Your task to perform on an android device: allow notifications from all sites in the chrome app Image 0: 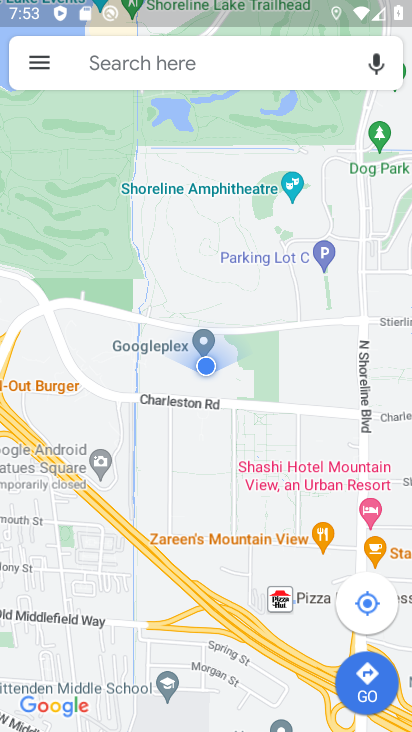
Step 0: press back button
Your task to perform on an android device: allow notifications from all sites in the chrome app Image 1: 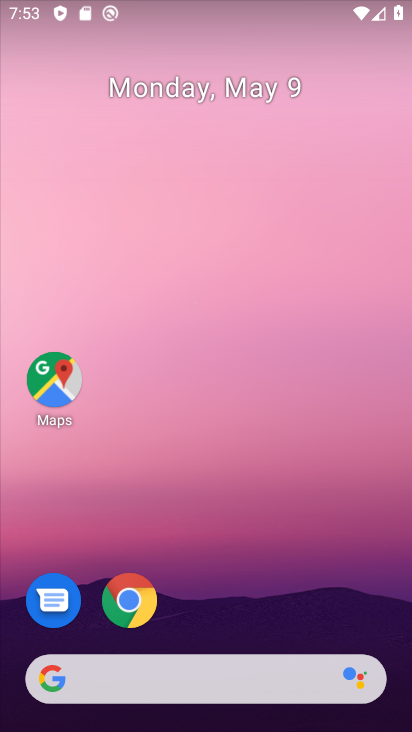
Step 1: drag from (259, 554) to (263, 10)
Your task to perform on an android device: allow notifications from all sites in the chrome app Image 2: 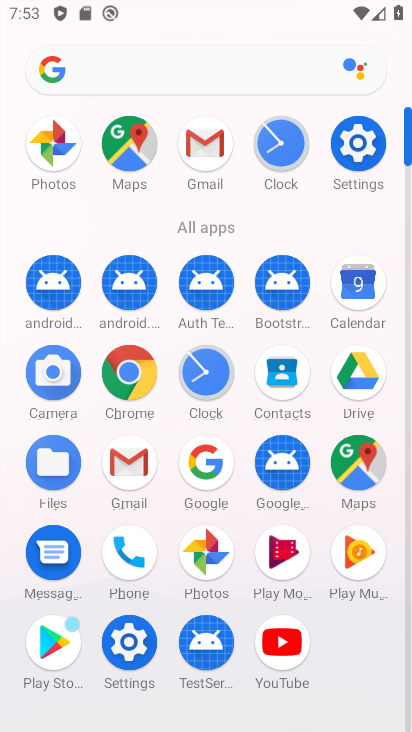
Step 2: click (123, 370)
Your task to perform on an android device: allow notifications from all sites in the chrome app Image 3: 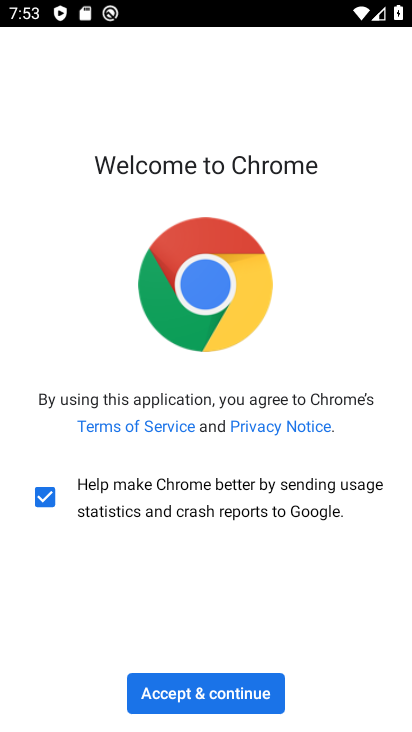
Step 3: click (192, 684)
Your task to perform on an android device: allow notifications from all sites in the chrome app Image 4: 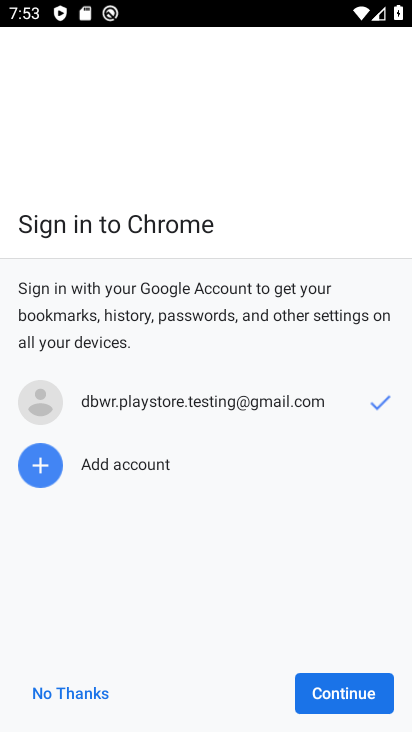
Step 4: click (335, 696)
Your task to perform on an android device: allow notifications from all sites in the chrome app Image 5: 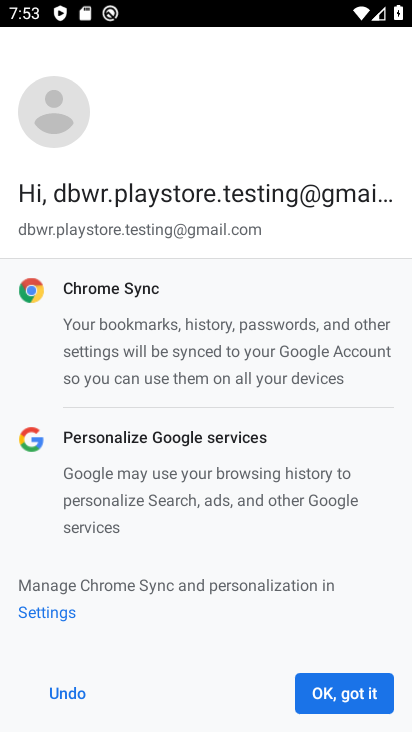
Step 5: click (338, 693)
Your task to perform on an android device: allow notifications from all sites in the chrome app Image 6: 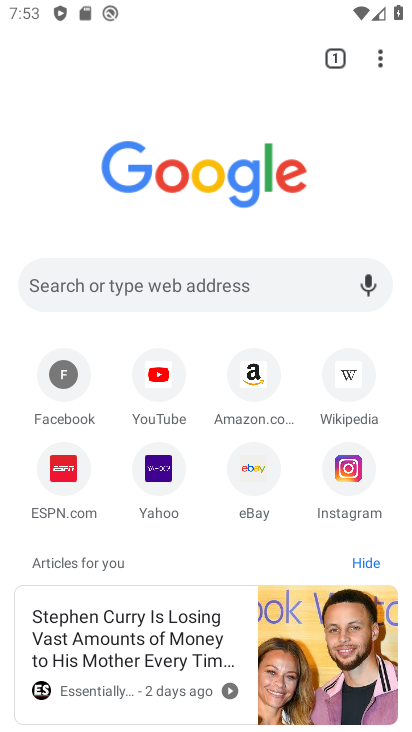
Step 6: drag from (378, 54) to (210, 486)
Your task to perform on an android device: allow notifications from all sites in the chrome app Image 7: 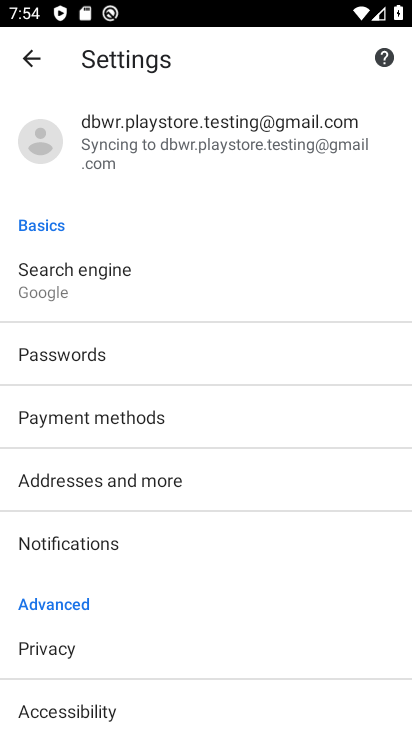
Step 7: drag from (187, 627) to (208, 324)
Your task to perform on an android device: allow notifications from all sites in the chrome app Image 8: 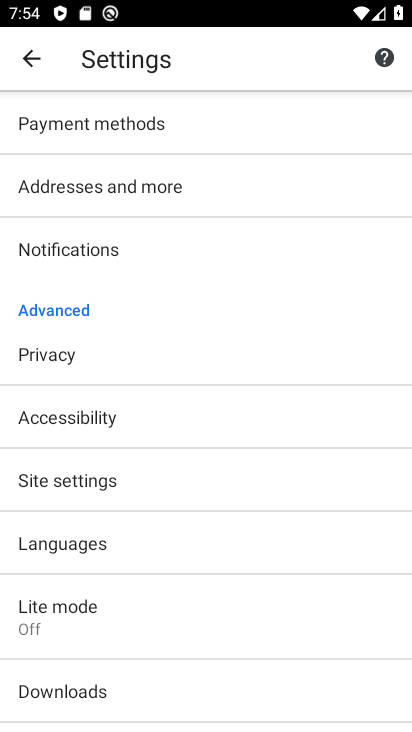
Step 8: drag from (236, 621) to (225, 290)
Your task to perform on an android device: allow notifications from all sites in the chrome app Image 9: 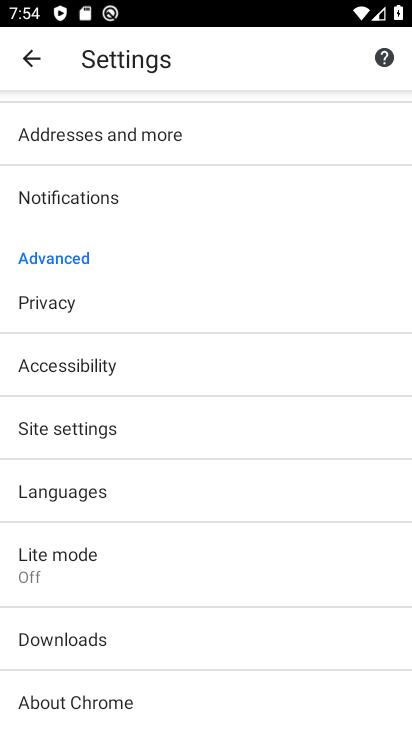
Step 9: click (161, 417)
Your task to perform on an android device: allow notifications from all sites in the chrome app Image 10: 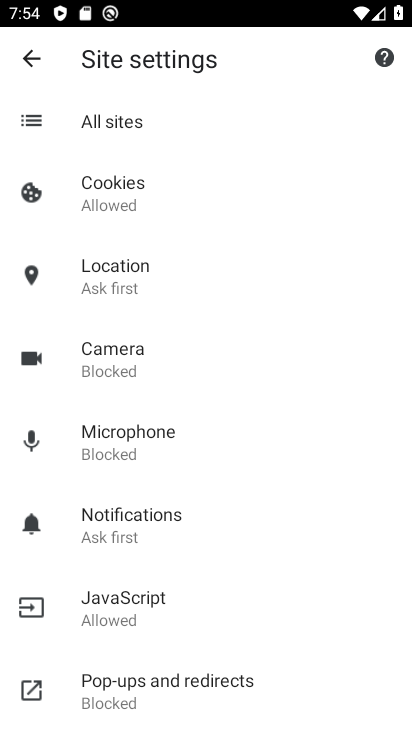
Step 10: click (180, 529)
Your task to perform on an android device: allow notifications from all sites in the chrome app Image 11: 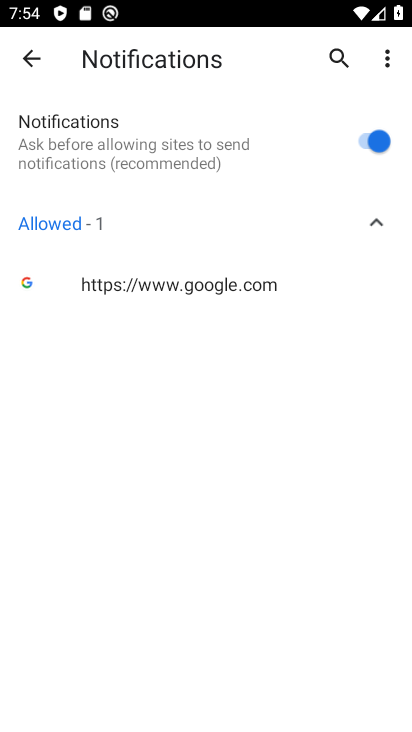
Step 11: task complete